Your task to perform on an android device: turn pop-ups on in chrome Image 0: 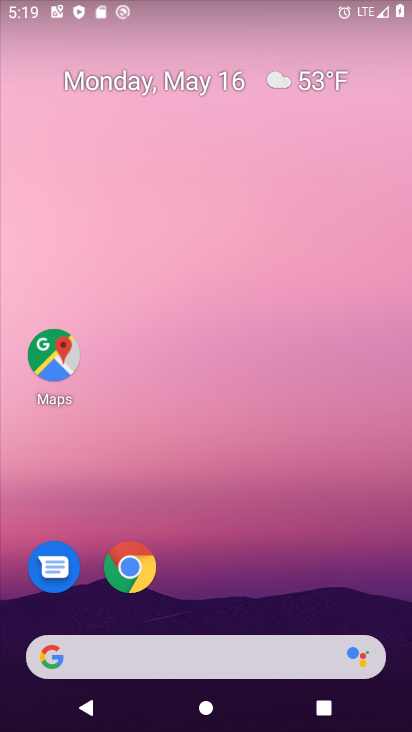
Step 0: drag from (167, 671) to (137, 24)
Your task to perform on an android device: turn pop-ups on in chrome Image 1: 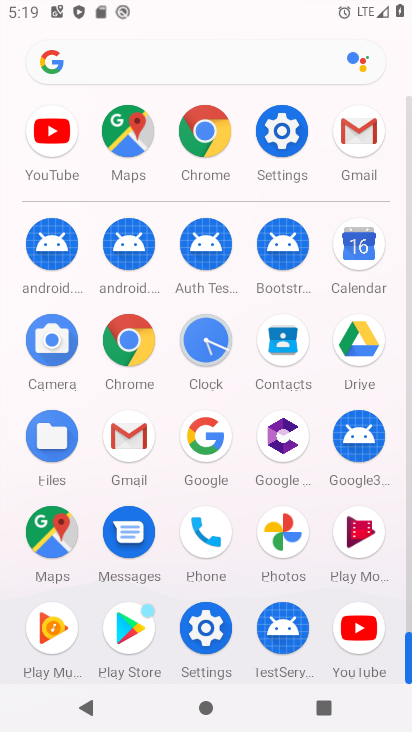
Step 1: click (125, 351)
Your task to perform on an android device: turn pop-ups on in chrome Image 2: 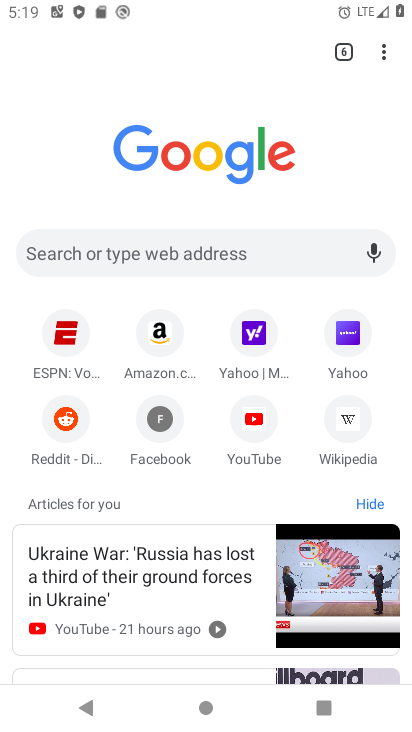
Step 2: click (381, 49)
Your task to perform on an android device: turn pop-ups on in chrome Image 3: 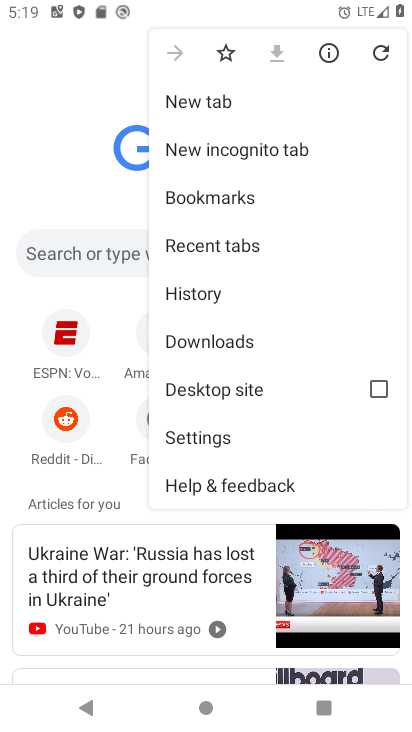
Step 3: click (244, 443)
Your task to perform on an android device: turn pop-ups on in chrome Image 4: 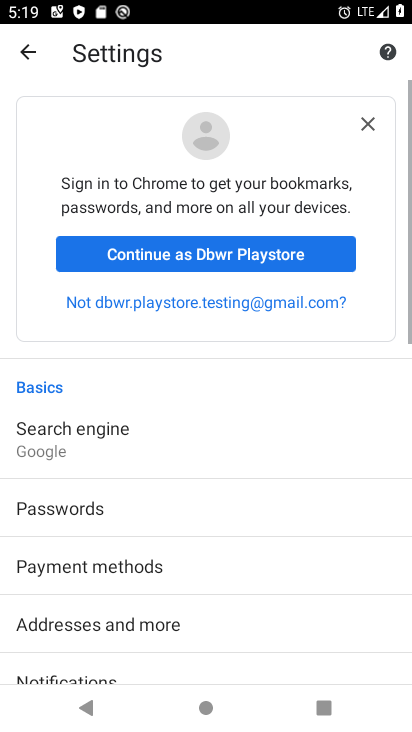
Step 4: drag from (311, 673) to (262, 233)
Your task to perform on an android device: turn pop-ups on in chrome Image 5: 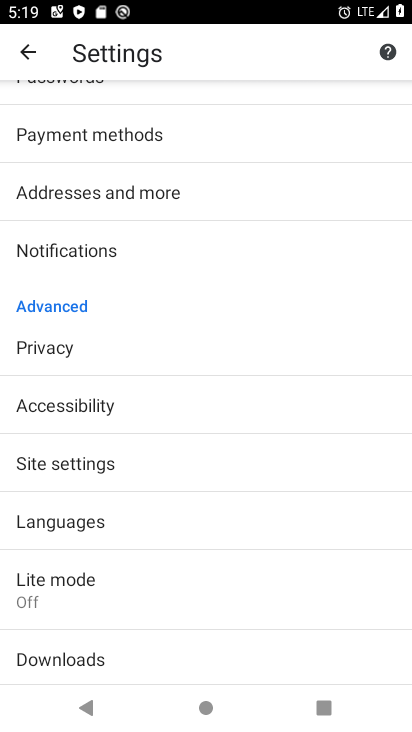
Step 5: click (125, 464)
Your task to perform on an android device: turn pop-ups on in chrome Image 6: 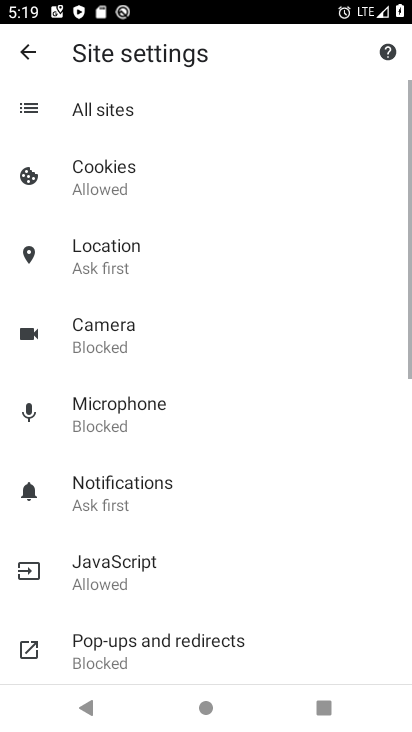
Step 6: drag from (223, 610) to (236, 193)
Your task to perform on an android device: turn pop-ups on in chrome Image 7: 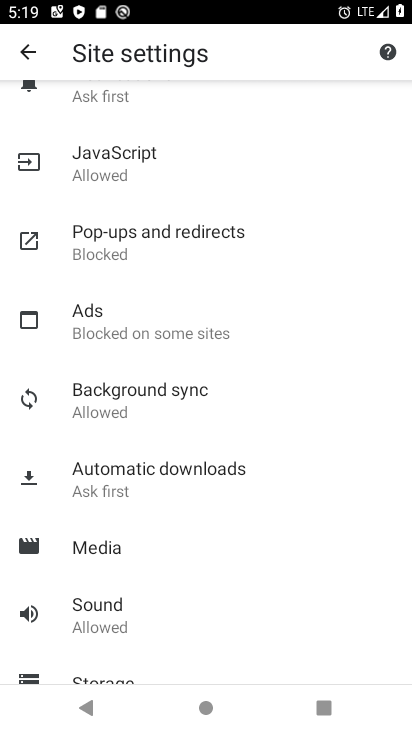
Step 7: click (187, 241)
Your task to perform on an android device: turn pop-ups on in chrome Image 8: 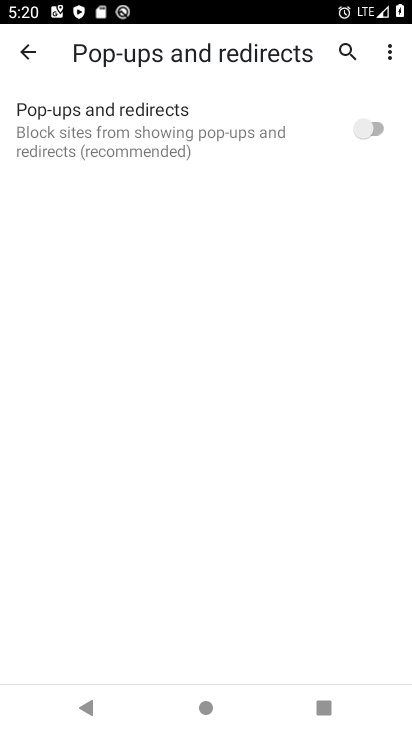
Step 8: click (373, 126)
Your task to perform on an android device: turn pop-ups on in chrome Image 9: 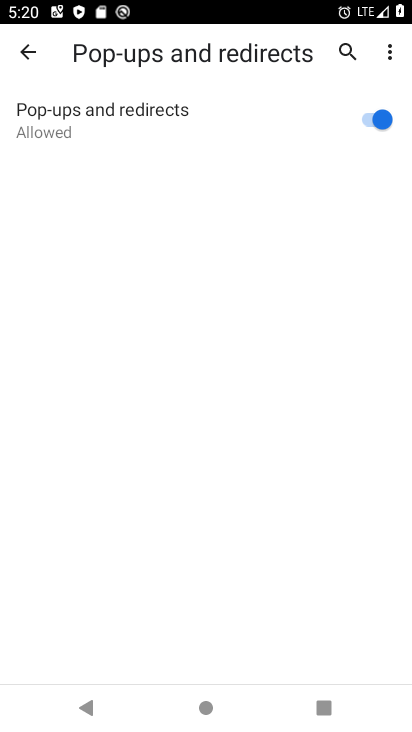
Step 9: task complete